Your task to perform on an android device: Search for pizza restaurants on Maps Image 0: 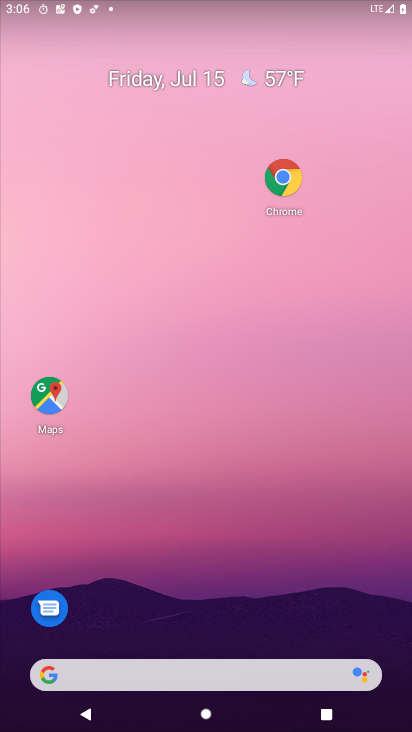
Step 0: drag from (326, 615) to (315, 558)
Your task to perform on an android device: Search for pizza restaurants on Maps Image 1: 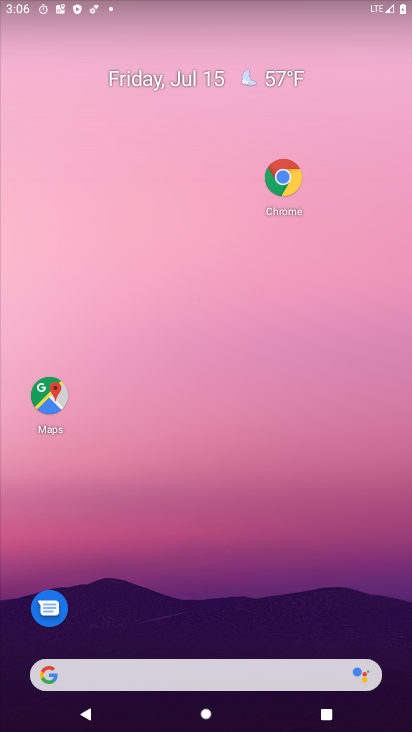
Step 1: click (32, 389)
Your task to perform on an android device: Search for pizza restaurants on Maps Image 2: 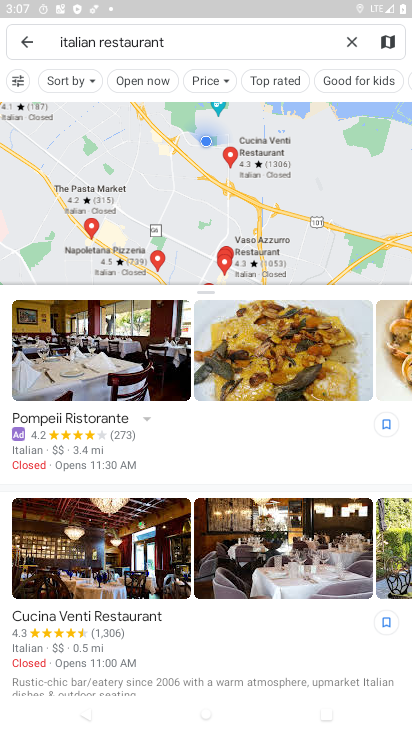
Step 2: click (353, 32)
Your task to perform on an android device: Search for pizza restaurants on Maps Image 3: 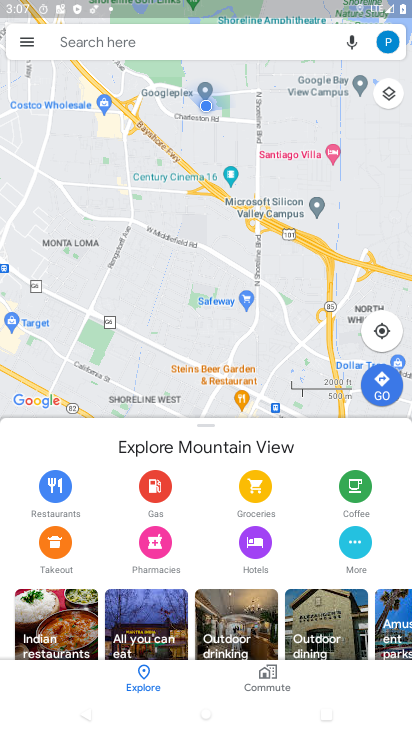
Step 3: click (267, 34)
Your task to perform on an android device: Search for pizza restaurants on Maps Image 4: 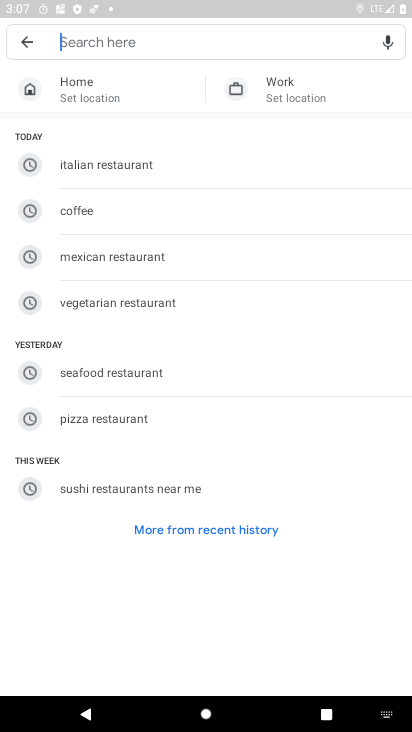
Step 4: type "pizza restaurants"
Your task to perform on an android device: Search for pizza restaurants on Maps Image 5: 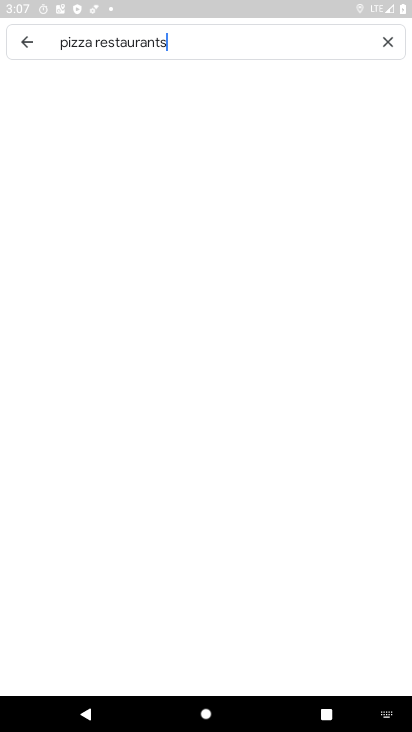
Step 5: type ""
Your task to perform on an android device: Search for pizza restaurants on Maps Image 6: 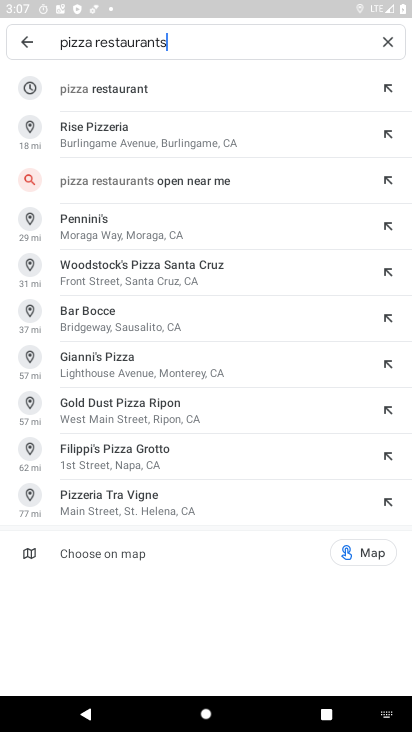
Step 6: click (75, 88)
Your task to perform on an android device: Search for pizza restaurants on Maps Image 7: 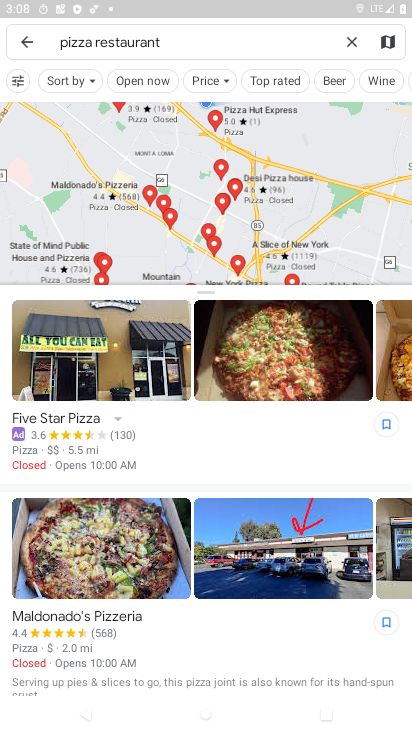
Step 7: task complete